Your task to perform on an android device: Clear the cart on target. Add razer blade to the cart on target, then select checkout. Image 0: 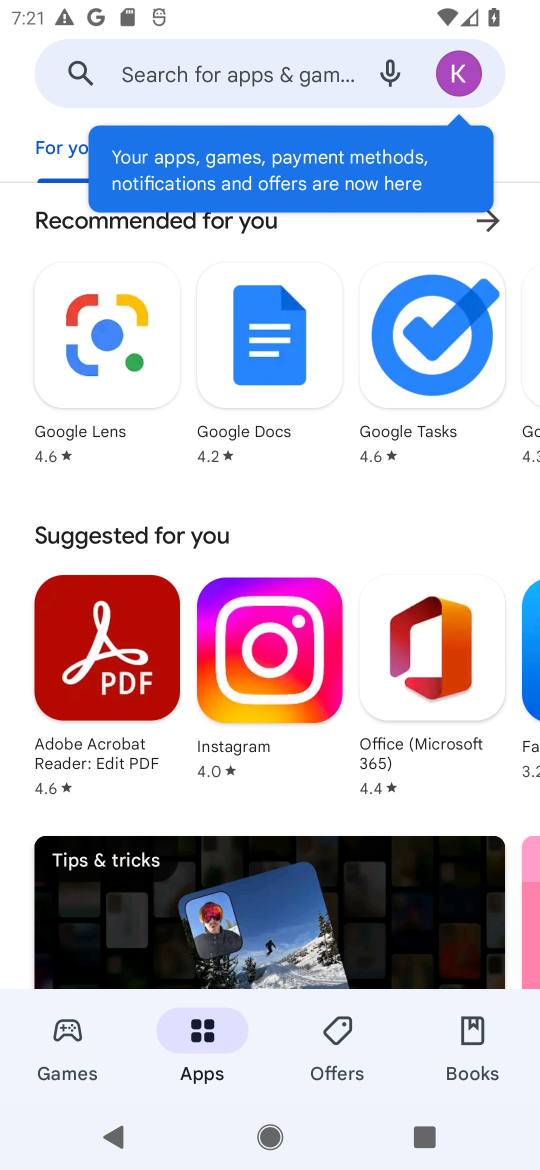
Step 0: press home button
Your task to perform on an android device: Clear the cart on target. Add razer blade to the cart on target, then select checkout. Image 1: 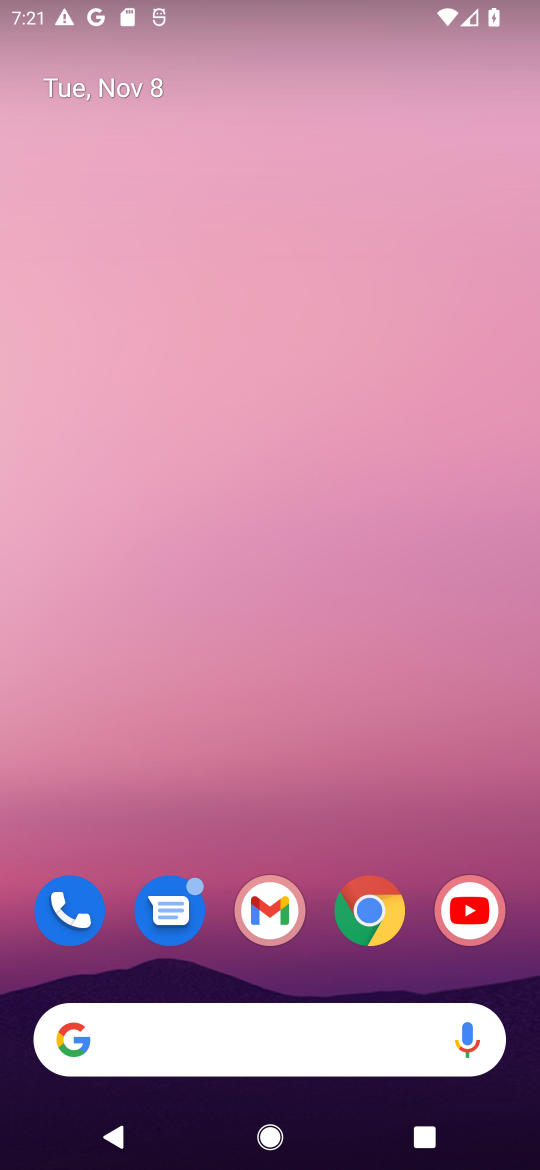
Step 1: click (352, 900)
Your task to perform on an android device: Clear the cart on target. Add razer blade to the cart on target, then select checkout. Image 2: 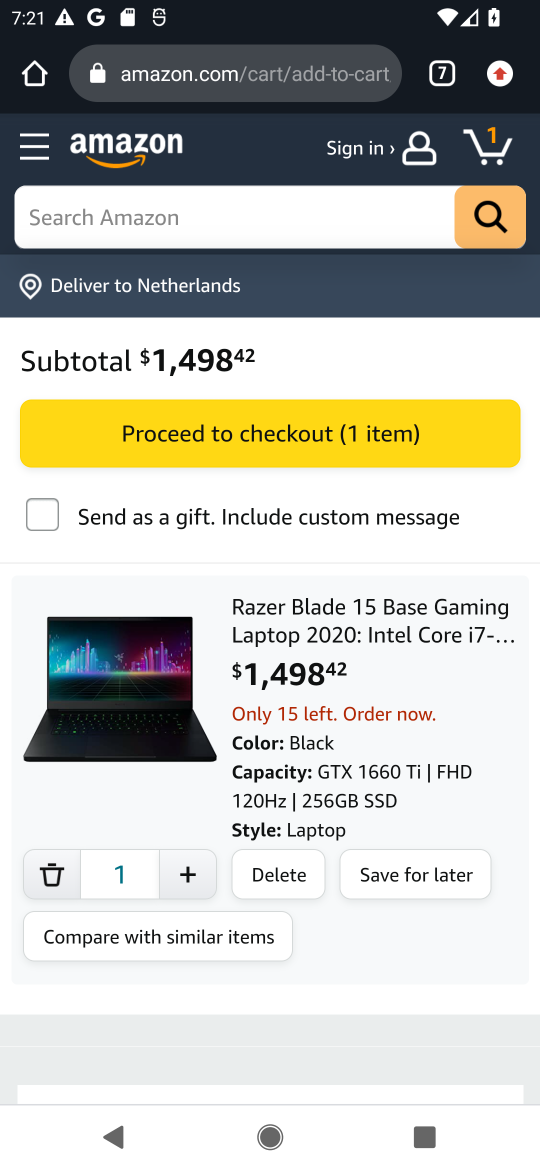
Step 2: click (451, 76)
Your task to perform on an android device: Clear the cart on target. Add razer blade to the cart on target, then select checkout. Image 3: 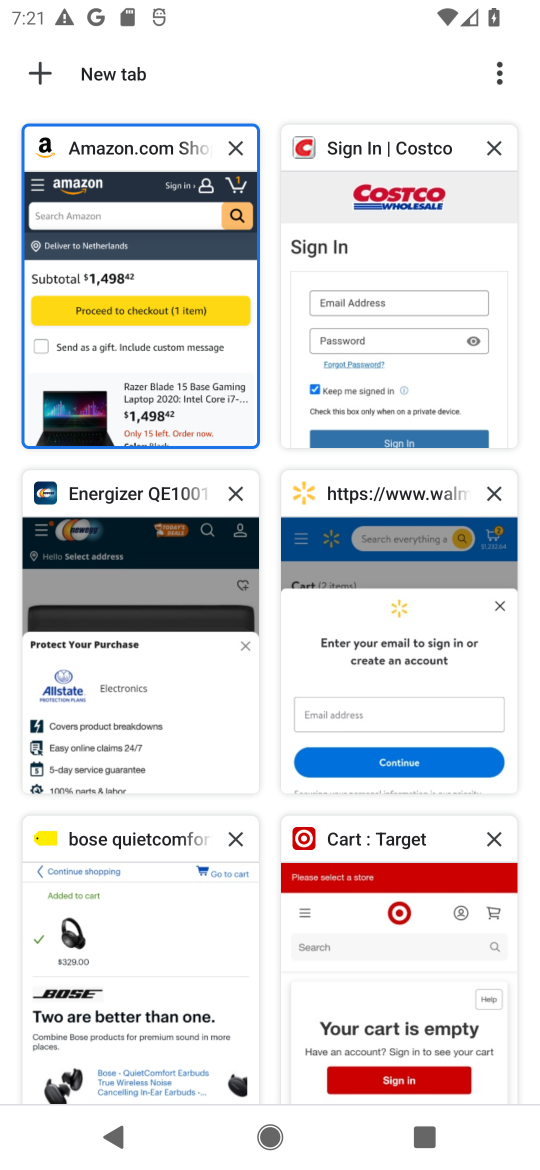
Step 3: click (331, 918)
Your task to perform on an android device: Clear the cart on target. Add razer blade to the cart on target, then select checkout. Image 4: 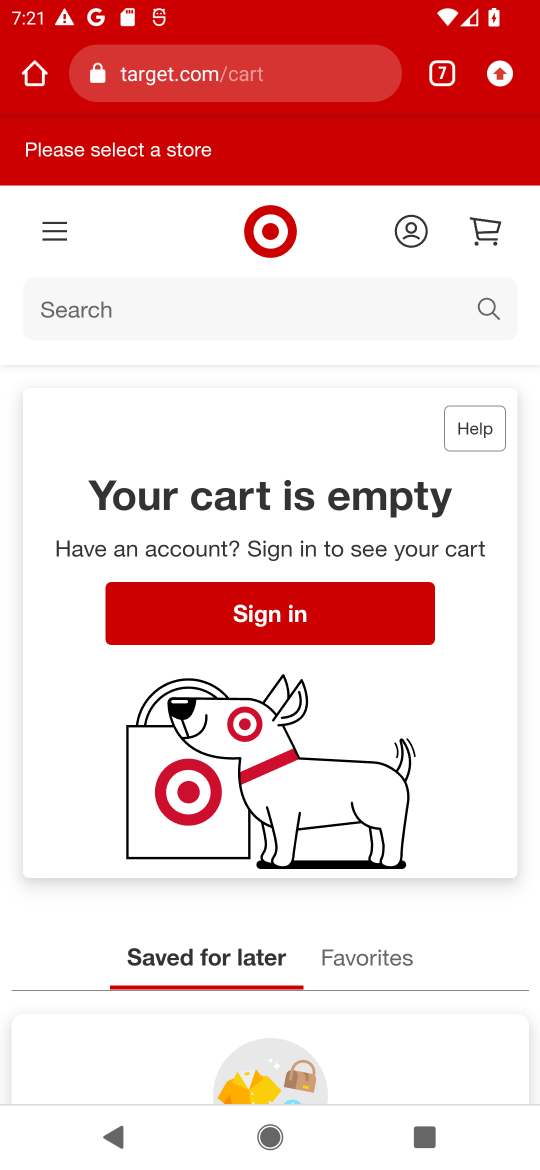
Step 4: click (315, 302)
Your task to perform on an android device: Clear the cart on target. Add razer blade to the cart on target, then select checkout. Image 5: 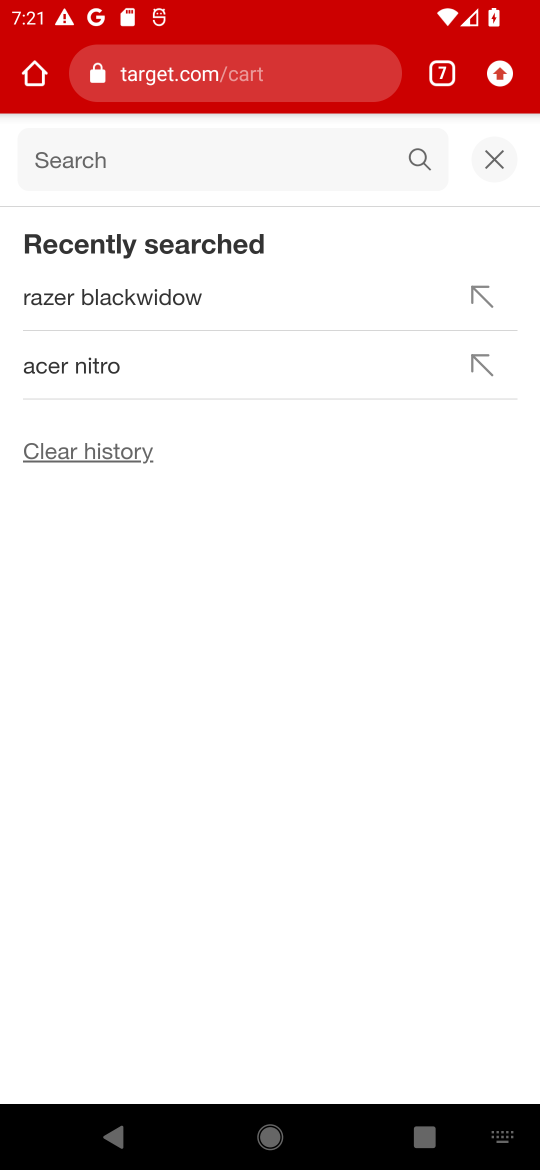
Step 5: type "razer blade"
Your task to perform on an android device: Clear the cart on target. Add razer blade to the cart on target, then select checkout. Image 6: 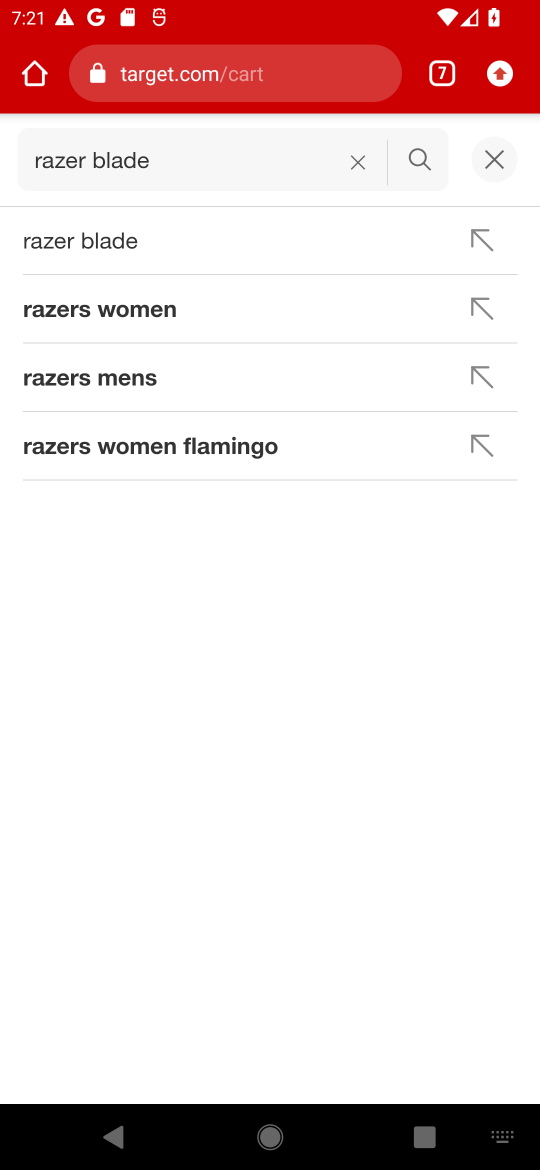
Step 6: click (121, 249)
Your task to perform on an android device: Clear the cart on target. Add razer blade to the cart on target, then select checkout. Image 7: 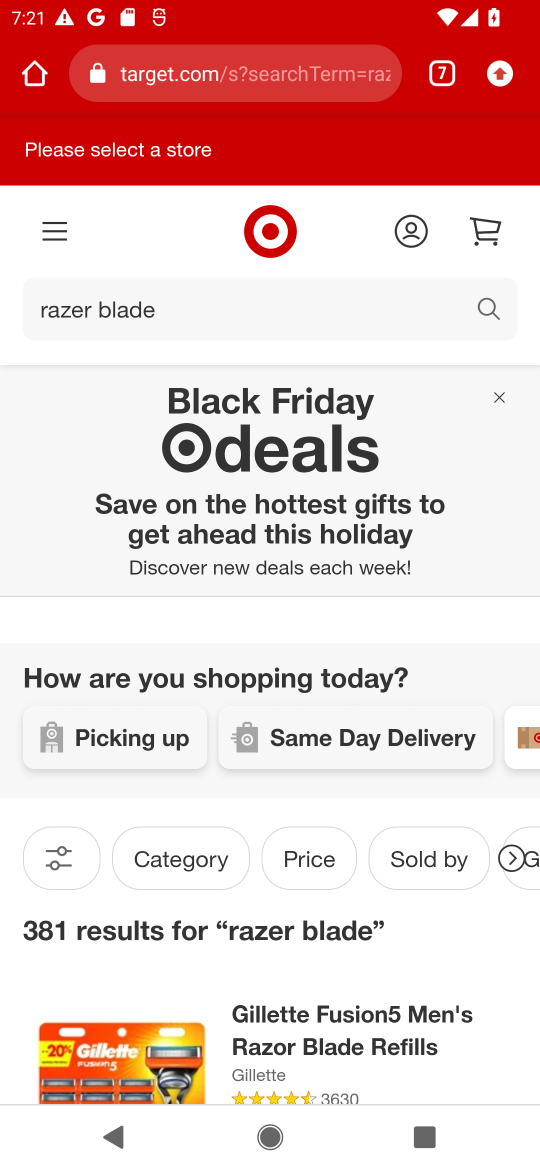
Step 7: drag from (375, 911) to (283, 335)
Your task to perform on an android device: Clear the cart on target. Add razer blade to the cart on target, then select checkout. Image 8: 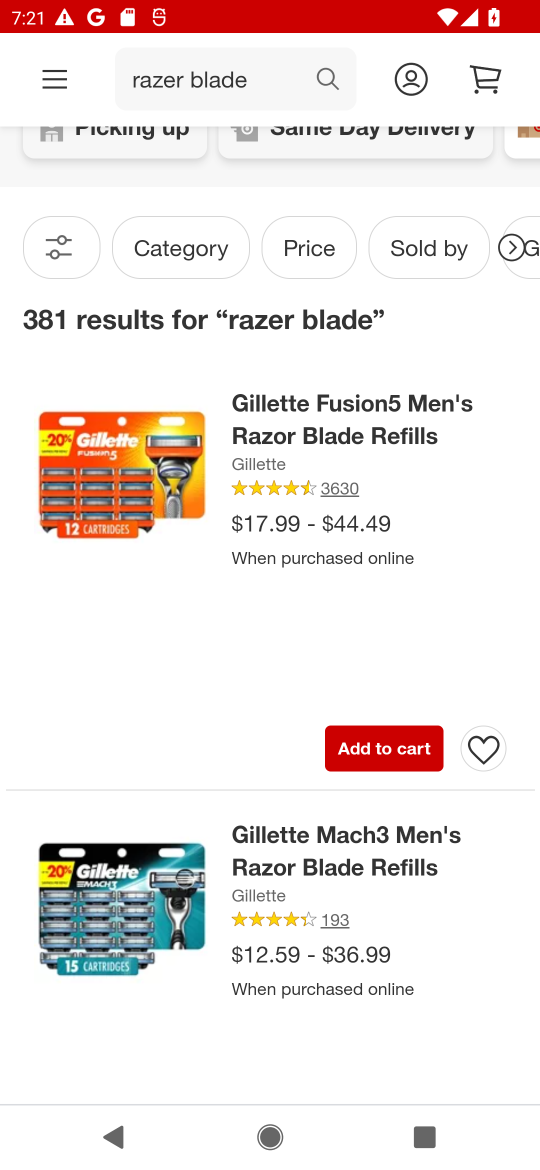
Step 8: click (406, 739)
Your task to perform on an android device: Clear the cart on target. Add razer blade to the cart on target, then select checkout. Image 9: 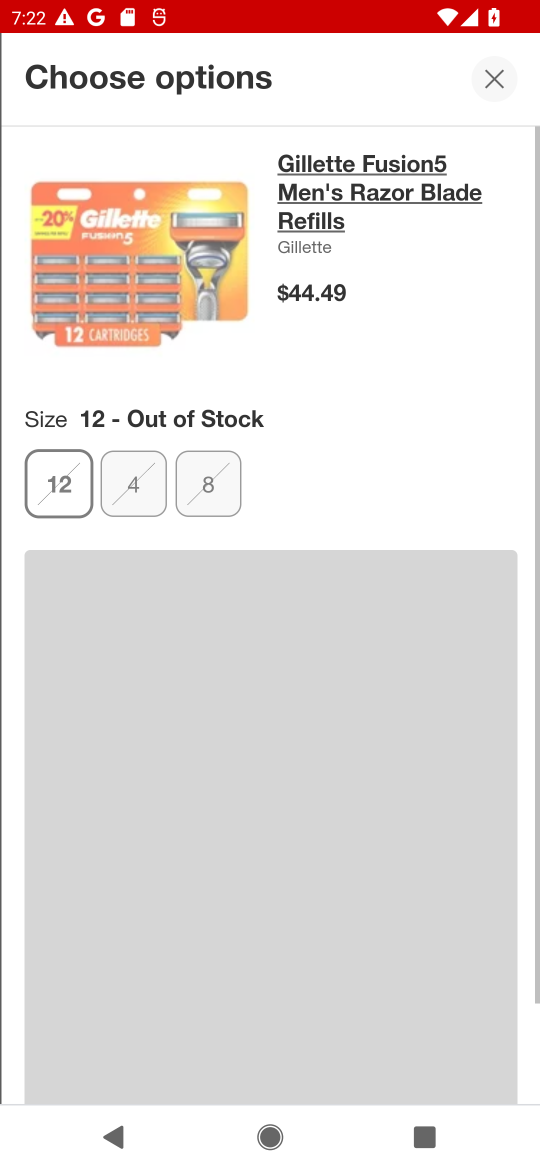
Step 9: click (496, 70)
Your task to perform on an android device: Clear the cart on target. Add razer blade to the cart on target, then select checkout. Image 10: 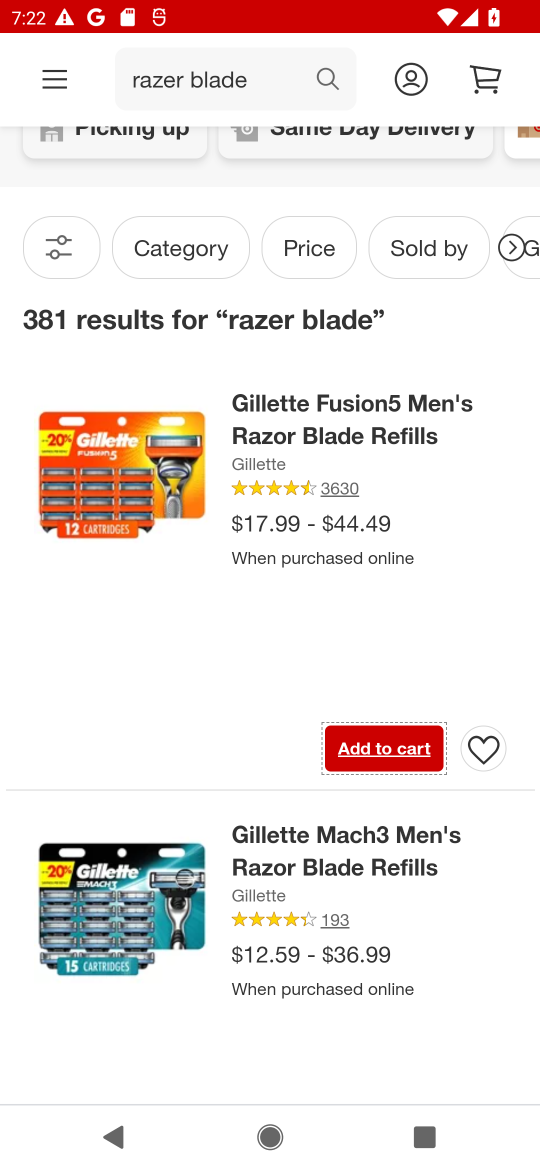
Step 10: drag from (364, 979) to (298, 381)
Your task to perform on an android device: Clear the cart on target. Add razer blade to the cart on target, then select checkout. Image 11: 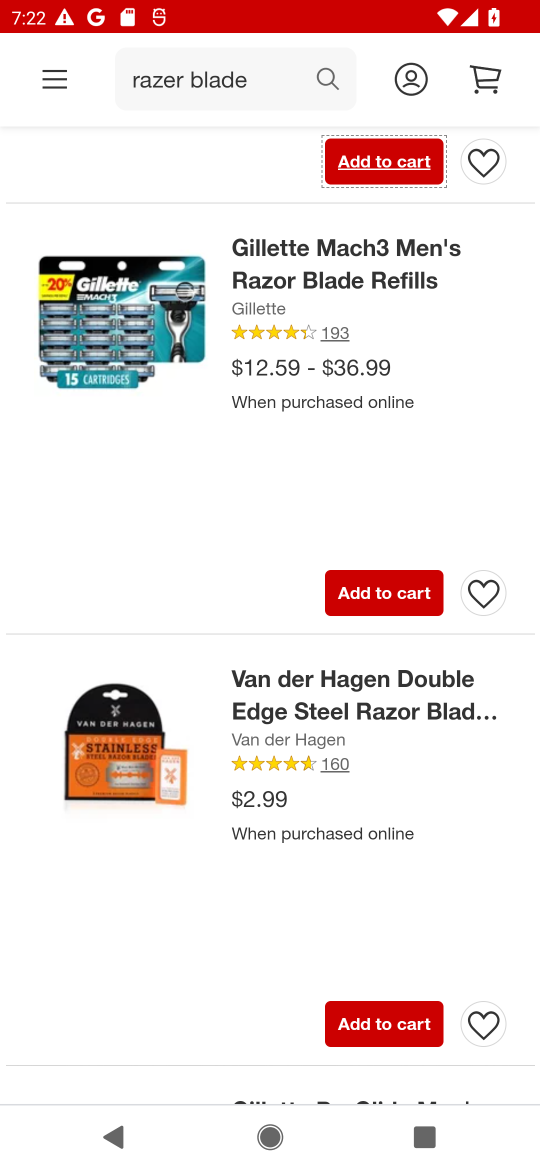
Step 11: click (409, 587)
Your task to perform on an android device: Clear the cart on target. Add razer blade to the cart on target, then select checkout. Image 12: 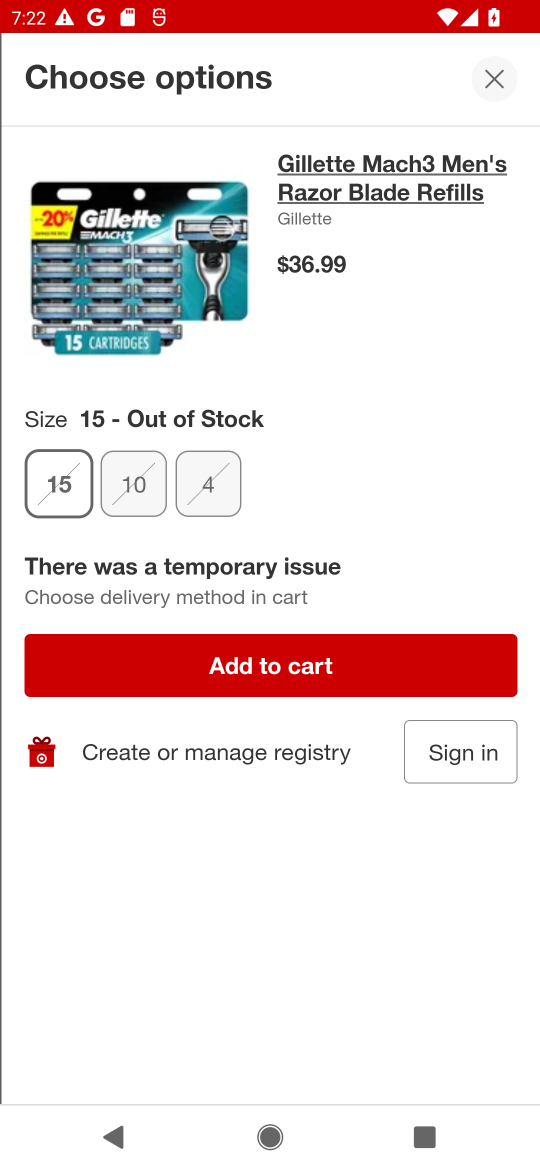
Step 12: click (288, 680)
Your task to perform on an android device: Clear the cart on target. Add razer blade to the cart on target, then select checkout. Image 13: 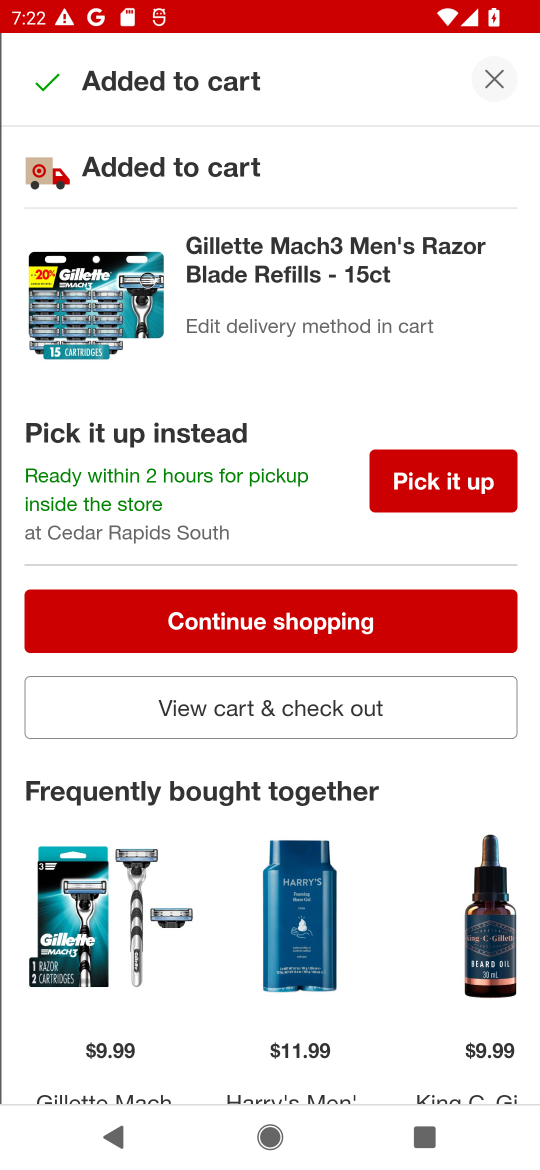
Step 13: click (331, 704)
Your task to perform on an android device: Clear the cart on target. Add razer blade to the cart on target, then select checkout. Image 14: 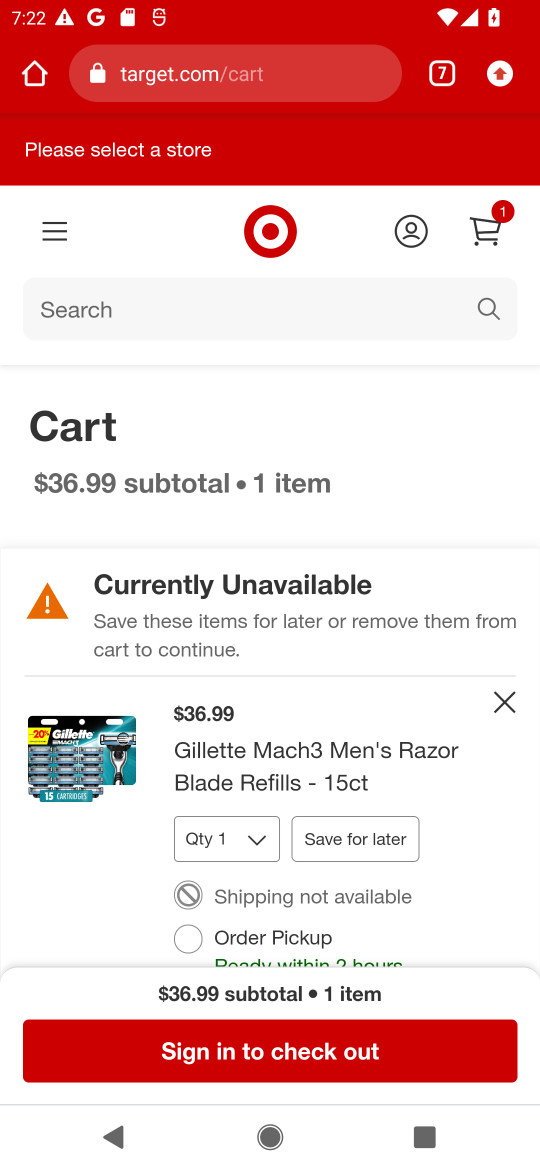
Step 14: click (295, 1044)
Your task to perform on an android device: Clear the cart on target. Add razer blade to the cart on target, then select checkout. Image 15: 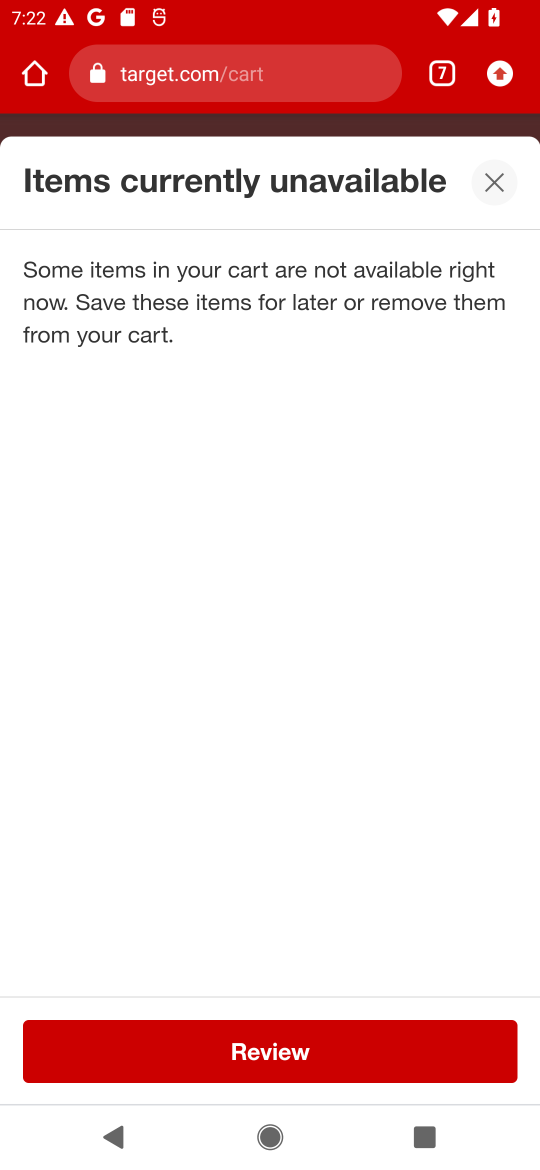
Step 15: task complete